Your task to perform on an android device: Open accessibility settings Image 0: 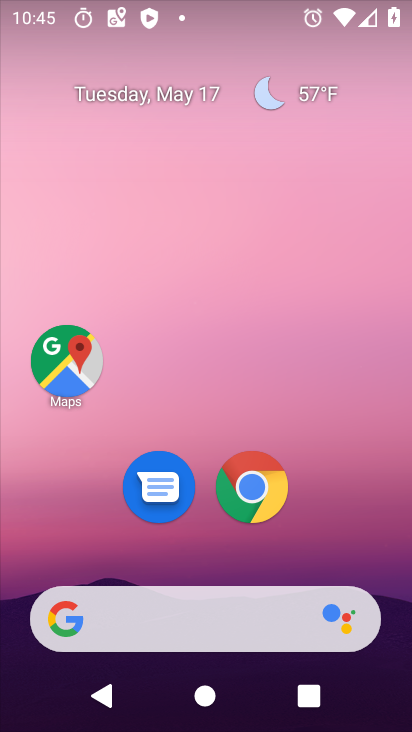
Step 0: drag from (220, 727) to (206, 132)
Your task to perform on an android device: Open accessibility settings Image 1: 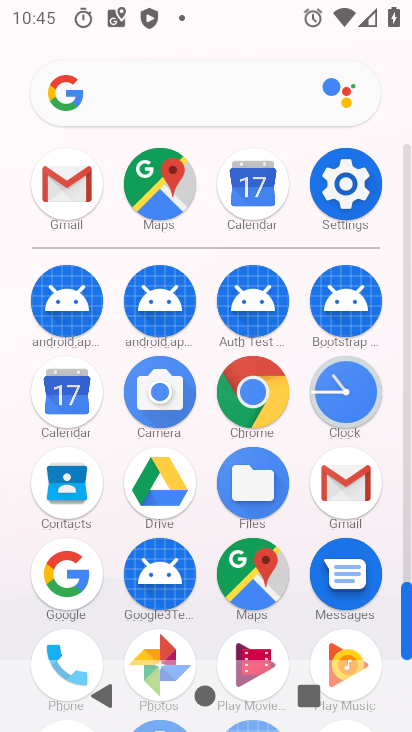
Step 1: click (349, 187)
Your task to perform on an android device: Open accessibility settings Image 2: 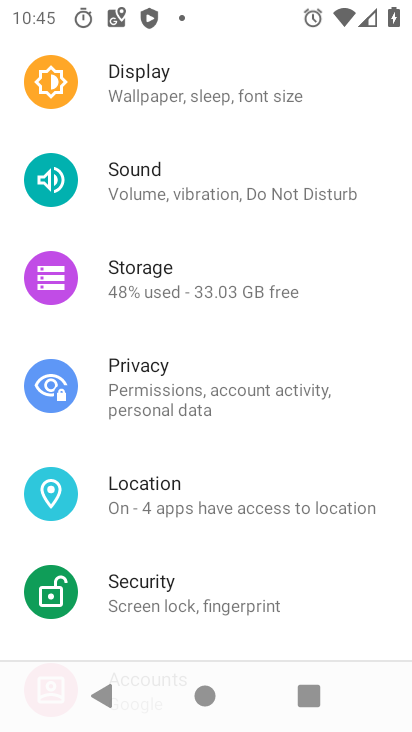
Step 2: drag from (234, 596) to (236, 249)
Your task to perform on an android device: Open accessibility settings Image 3: 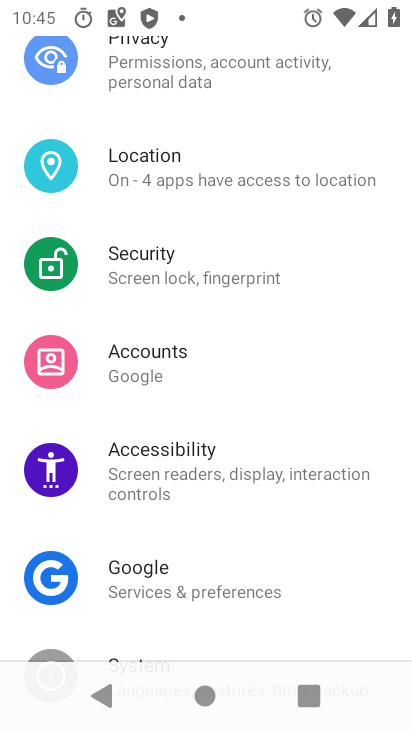
Step 3: click (162, 468)
Your task to perform on an android device: Open accessibility settings Image 4: 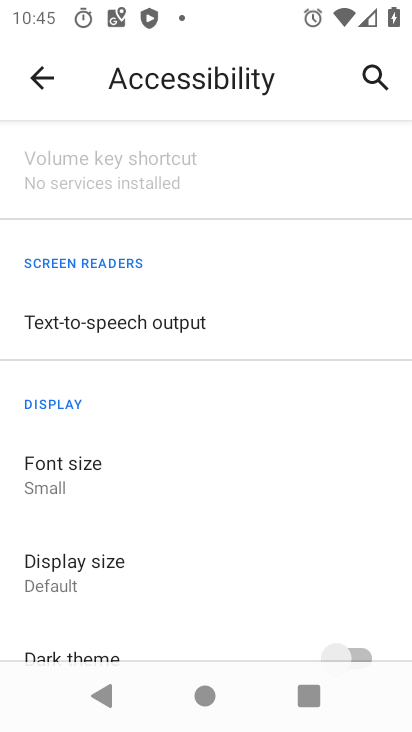
Step 4: task complete